Your task to perform on an android device: Clear the cart on costco.com. Search for logitech g910 on costco.com, select the first entry, add it to the cart, then select checkout. Image 0: 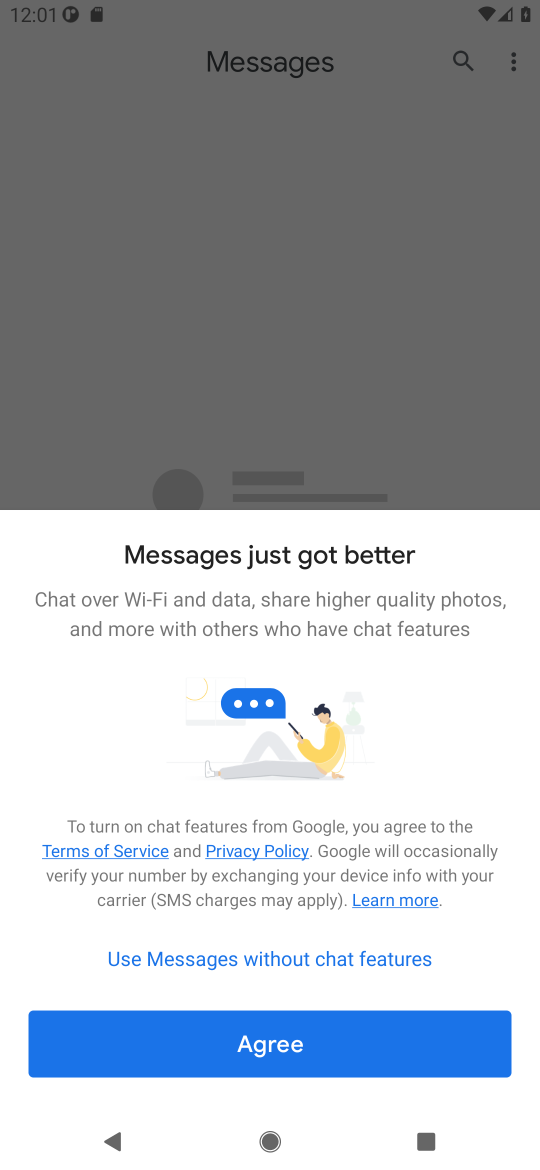
Step 0: press home button
Your task to perform on an android device: Clear the cart on costco.com. Search for logitech g910 on costco.com, select the first entry, add it to the cart, then select checkout. Image 1: 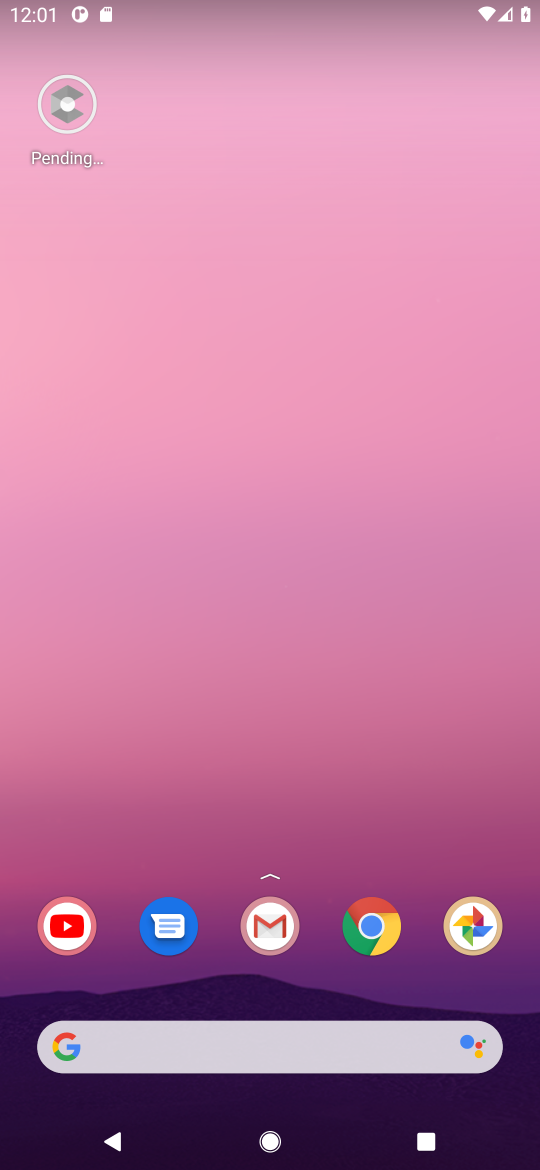
Step 1: click (372, 923)
Your task to perform on an android device: Clear the cart on costco.com. Search for logitech g910 on costco.com, select the first entry, add it to the cart, then select checkout. Image 2: 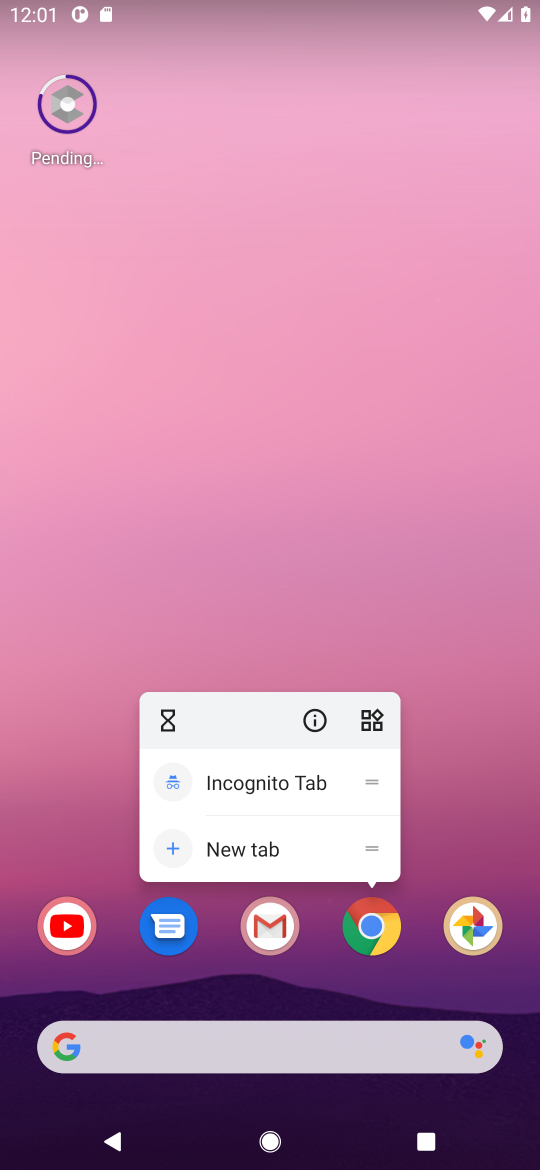
Step 2: click (372, 929)
Your task to perform on an android device: Clear the cart on costco.com. Search for logitech g910 on costco.com, select the first entry, add it to the cart, then select checkout. Image 3: 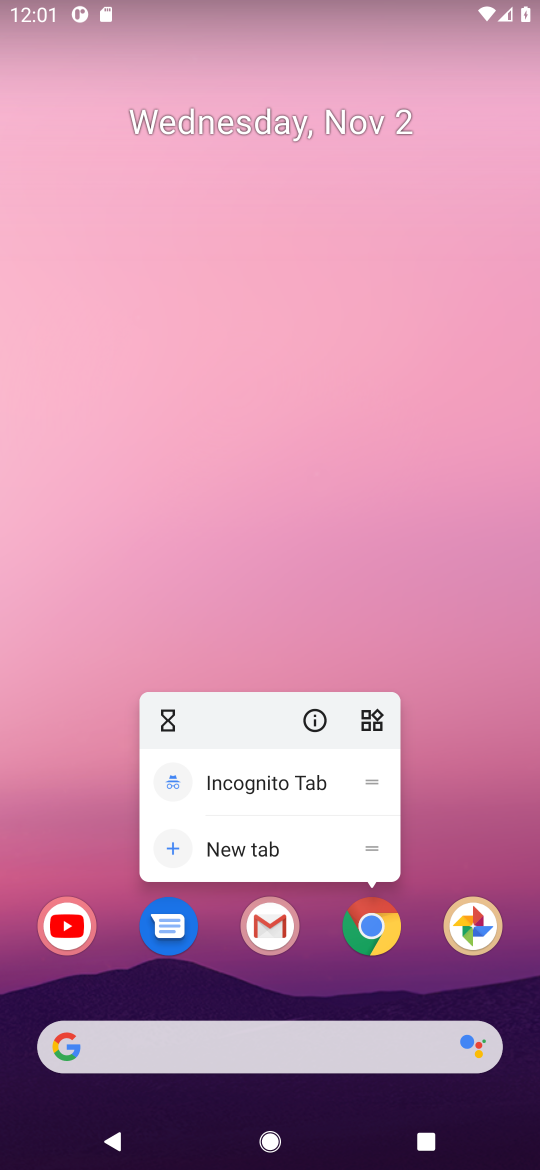
Step 3: click (371, 933)
Your task to perform on an android device: Clear the cart on costco.com. Search for logitech g910 on costco.com, select the first entry, add it to the cart, then select checkout. Image 4: 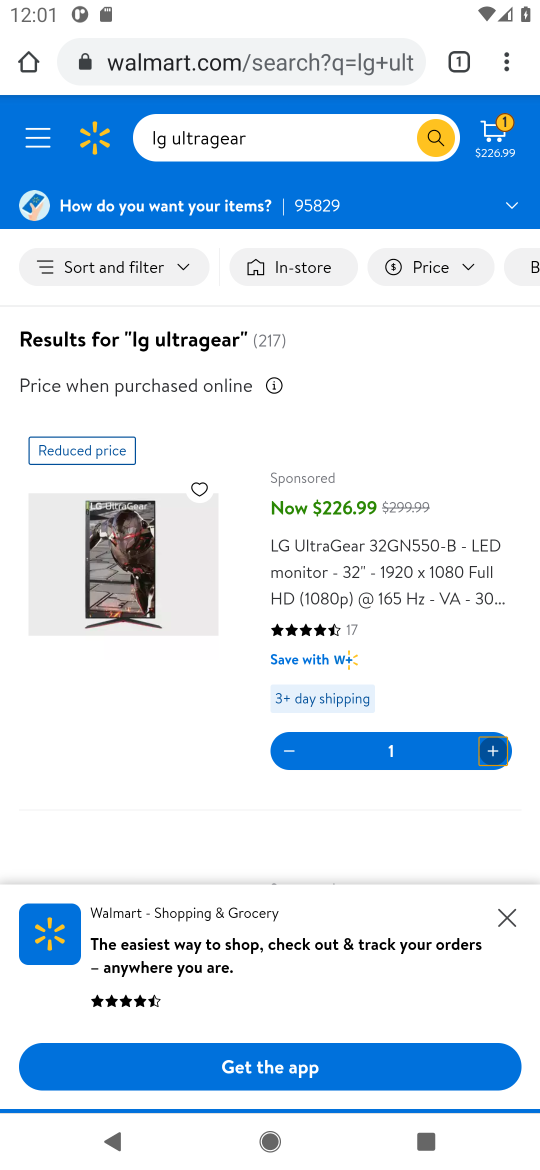
Step 4: click (268, 62)
Your task to perform on an android device: Clear the cart on costco.com. Search for logitech g910 on costco.com, select the first entry, add it to the cart, then select checkout. Image 5: 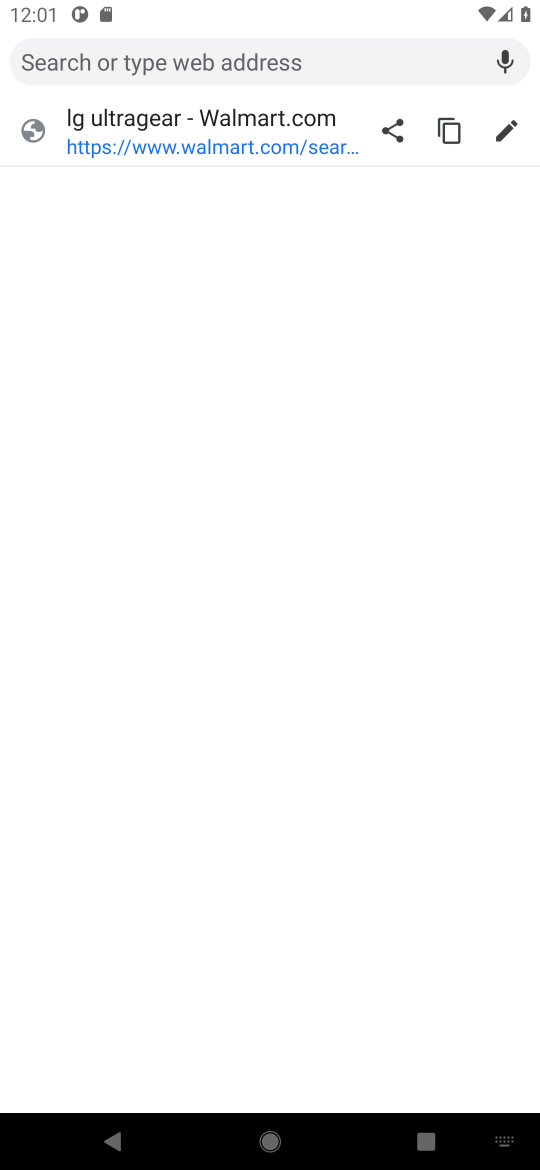
Step 5: type "costco.com"
Your task to perform on an android device: Clear the cart on costco.com. Search for logitech g910 on costco.com, select the first entry, add it to the cart, then select checkout. Image 6: 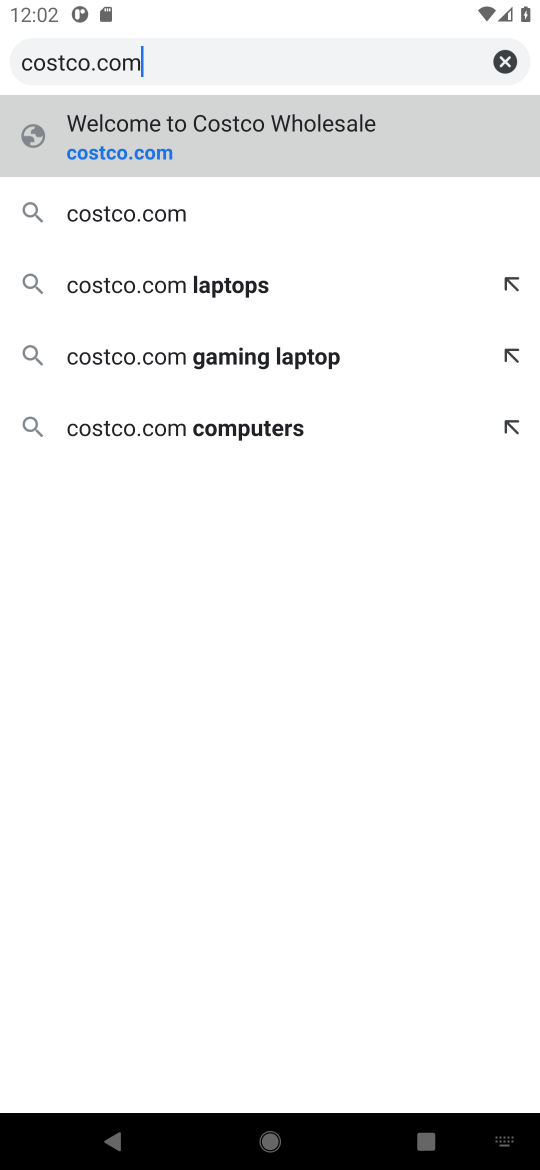
Step 6: click (144, 215)
Your task to perform on an android device: Clear the cart on costco.com. Search for logitech g910 on costco.com, select the first entry, add it to the cart, then select checkout. Image 7: 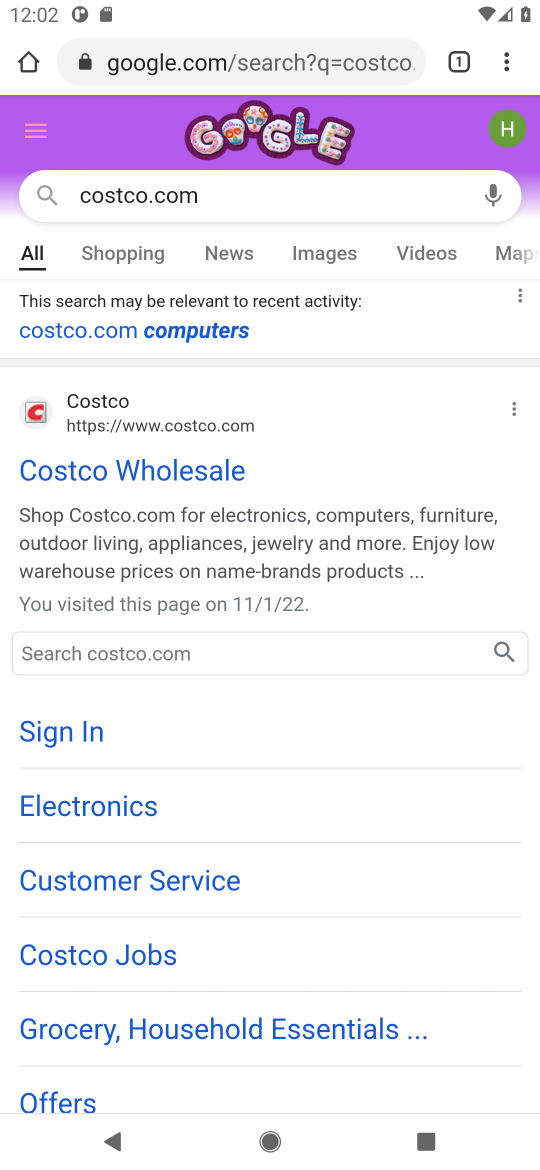
Step 7: click (176, 462)
Your task to perform on an android device: Clear the cart on costco.com. Search for logitech g910 on costco.com, select the first entry, add it to the cart, then select checkout. Image 8: 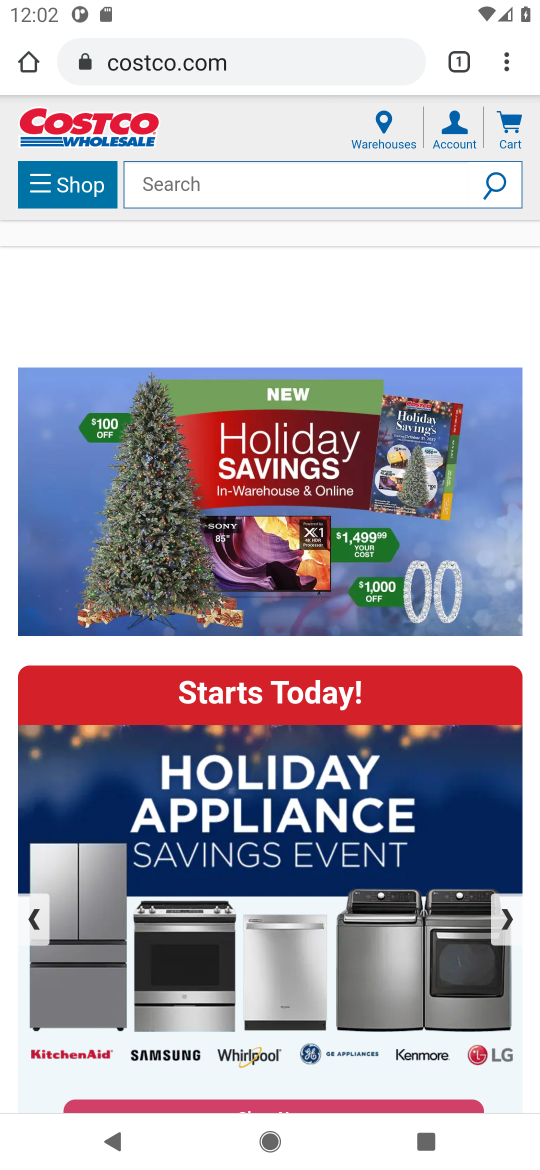
Step 8: click (304, 169)
Your task to perform on an android device: Clear the cart on costco.com. Search for logitech g910 on costco.com, select the first entry, add it to the cart, then select checkout. Image 9: 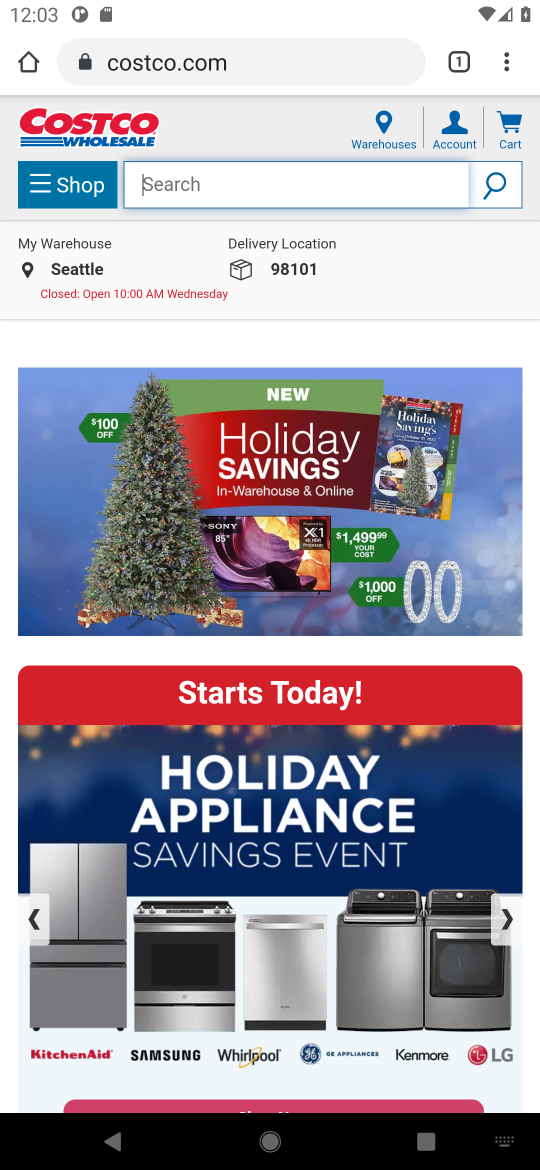
Step 9: press enter
Your task to perform on an android device: Clear the cart on costco.com. Search for logitech g910 on costco.com, select the first entry, add it to the cart, then select checkout. Image 10: 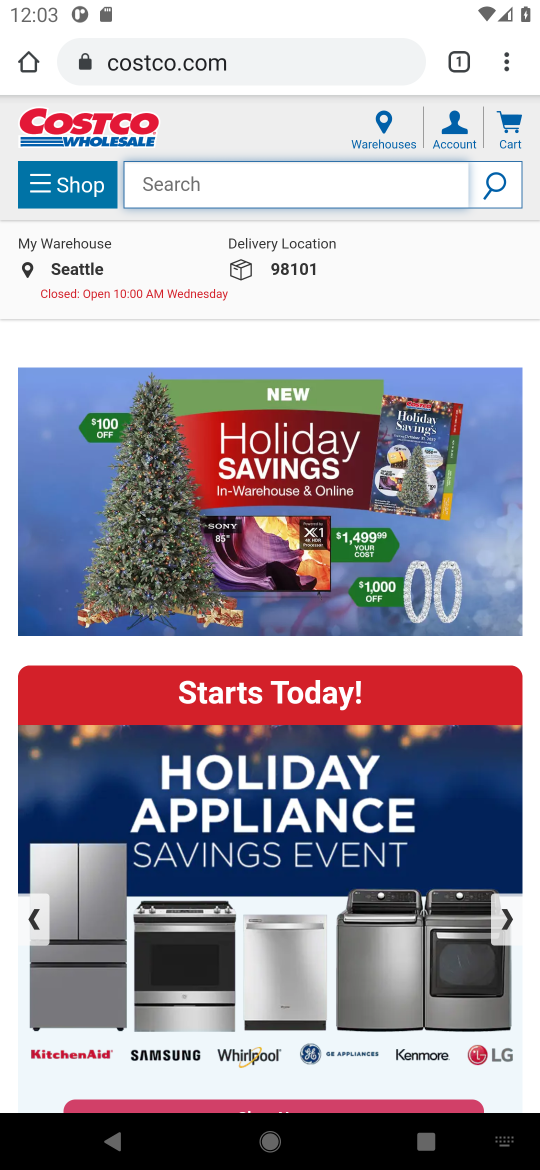
Step 10: type "logitech g910"
Your task to perform on an android device: Clear the cart on costco.com. Search for logitech g910 on costco.com, select the first entry, add it to the cart, then select checkout. Image 11: 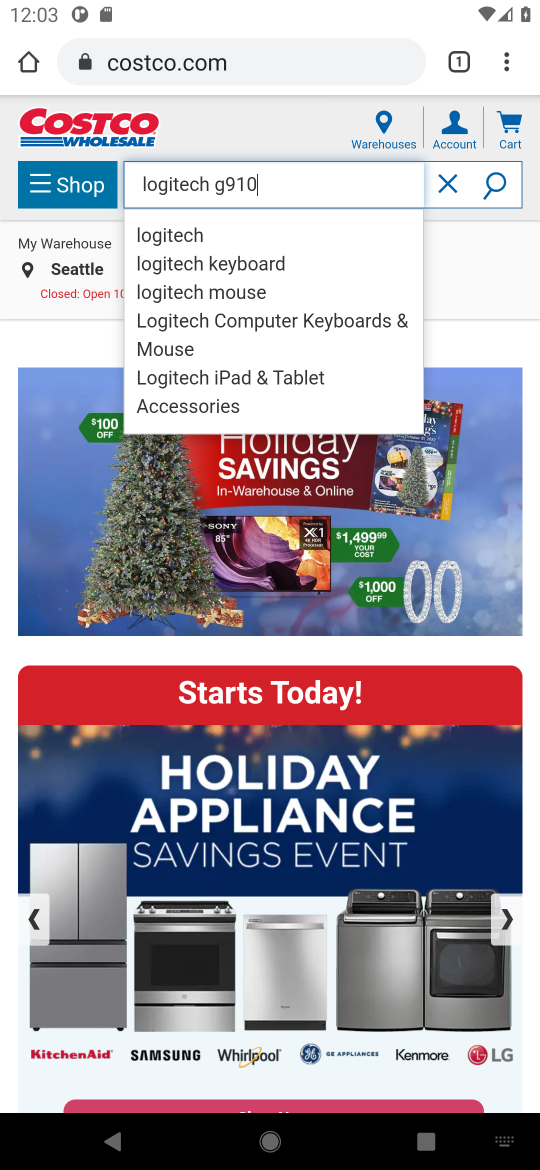
Step 11: press enter
Your task to perform on an android device: Clear the cart on costco.com. Search for logitech g910 on costco.com, select the first entry, add it to the cart, then select checkout. Image 12: 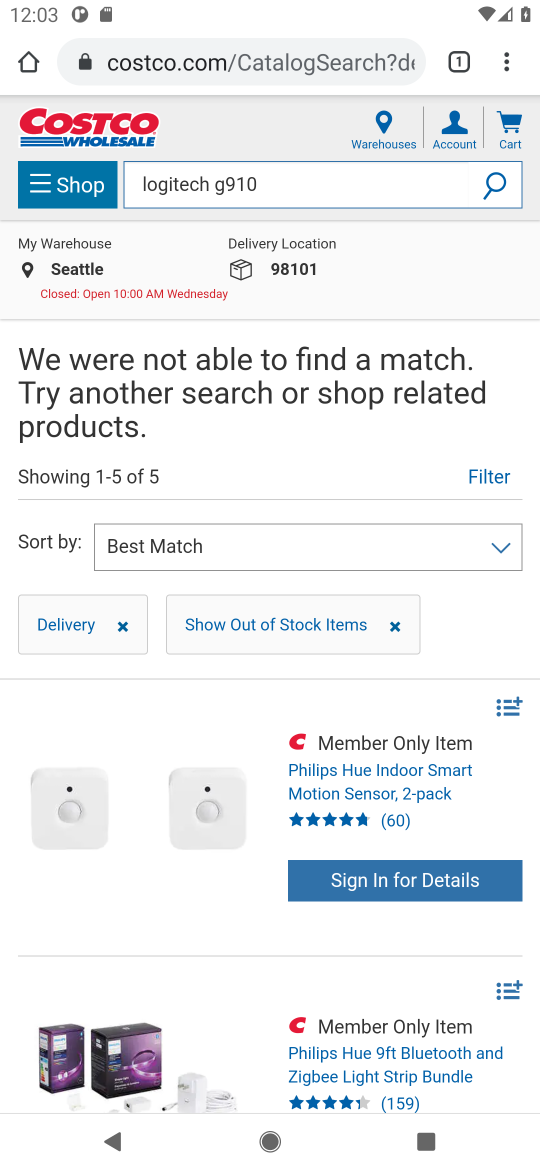
Step 12: task complete